Your task to perform on an android device: turn on notifications settings in the gmail app Image 0: 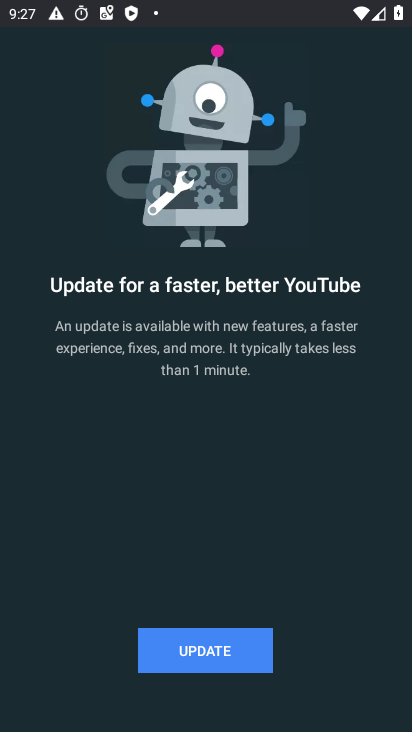
Step 0: press home button
Your task to perform on an android device: turn on notifications settings in the gmail app Image 1: 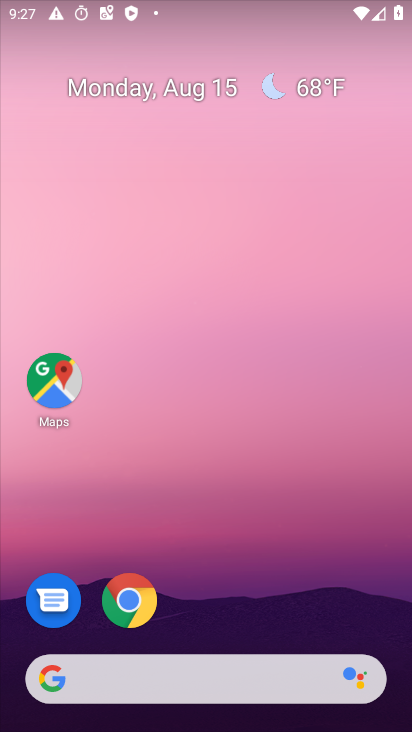
Step 1: drag from (209, 638) to (209, 15)
Your task to perform on an android device: turn on notifications settings in the gmail app Image 2: 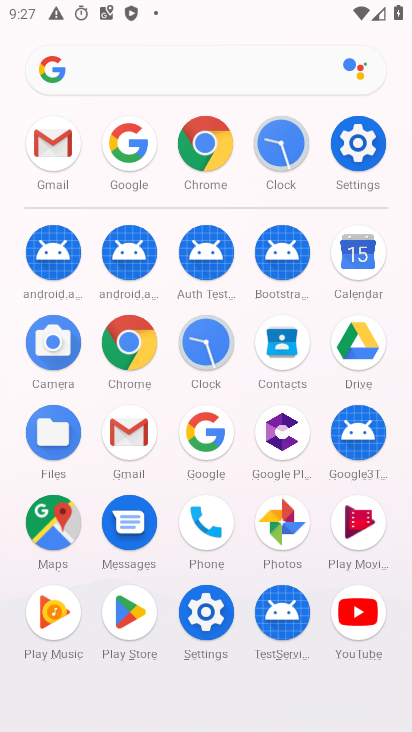
Step 2: click (135, 430)
Your task to perform on an android device: turn on notifications settings in the gmail app Image 3: 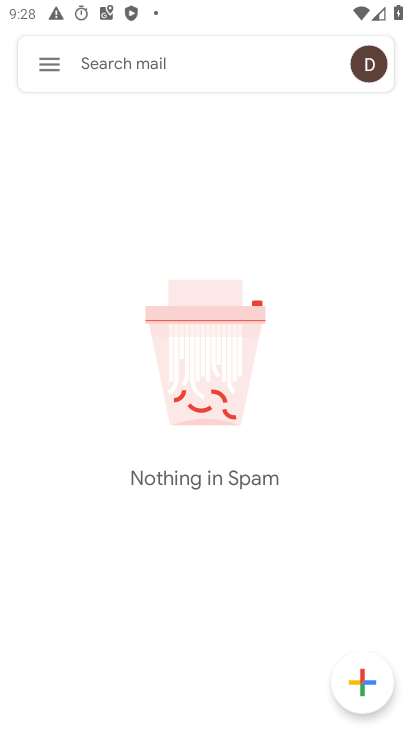
Step 3: click (53, 69)
Your task to perform on an android device: turn on notifications settings in the gmail app Image 4: 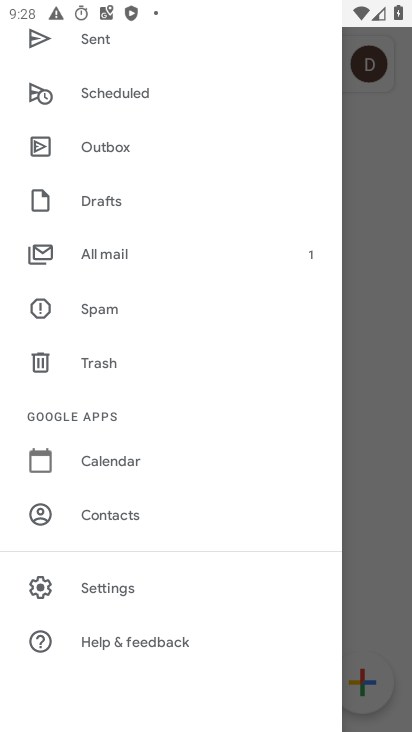
Step 4: click (121, 590)
Your task to perform on an android device: turn on notifications settings in the gmail app Image 5: 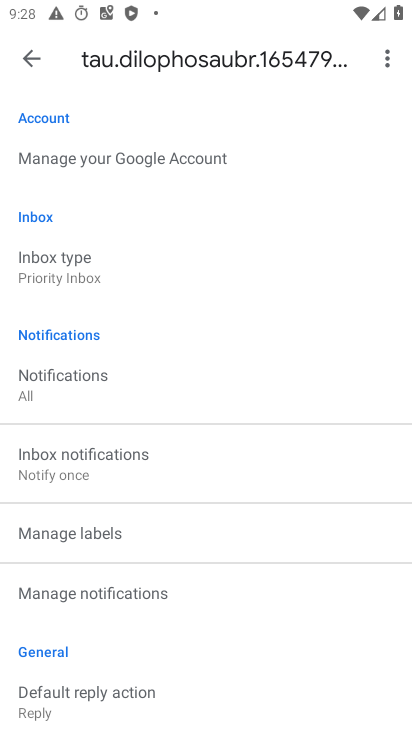
Step 5: task complete